Your task to perform on an android device: What is the news today? Image 0: 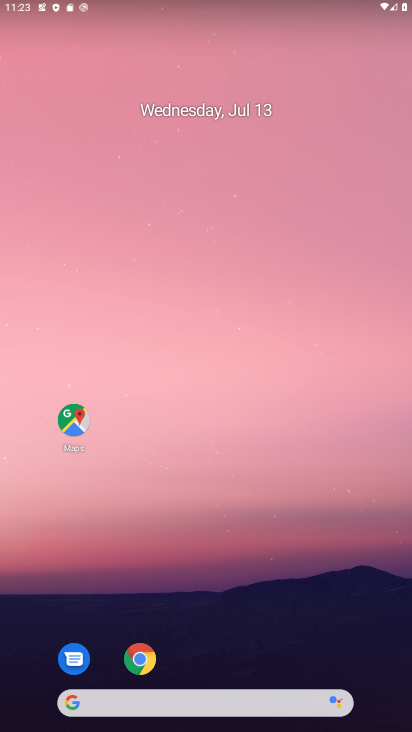
Step 0: click (132, 664)
Your task to perform on an android device: What is the news today? Image 1: 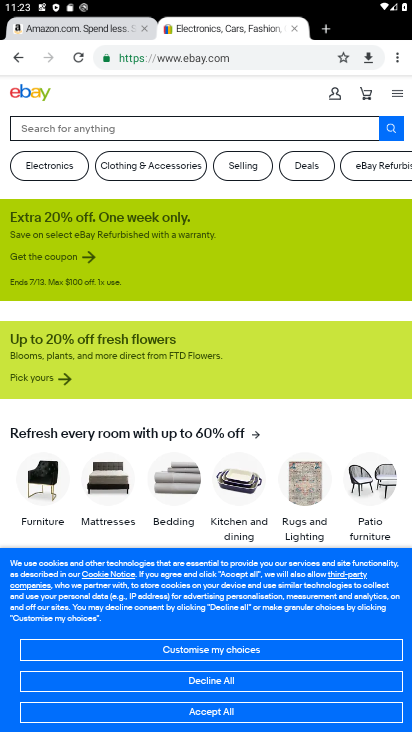
Step 1: click (239, 61)
Your task to perform on an android device: What is the news today? Image 2: 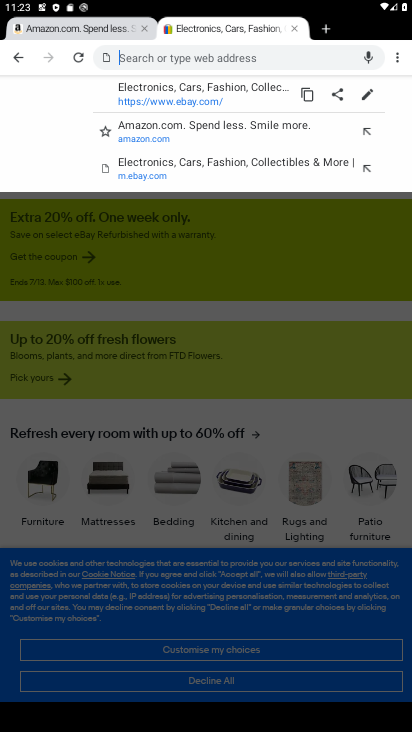
Step 2: type "news today"
Your task to perform on an android device: What is the news today? Image 3: 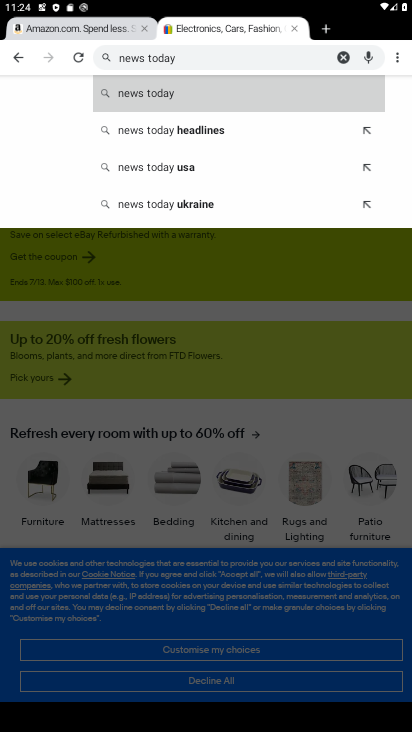
Step 3: click (257, 87)
Your task to perform on an android device: What is the news today? Image 4: 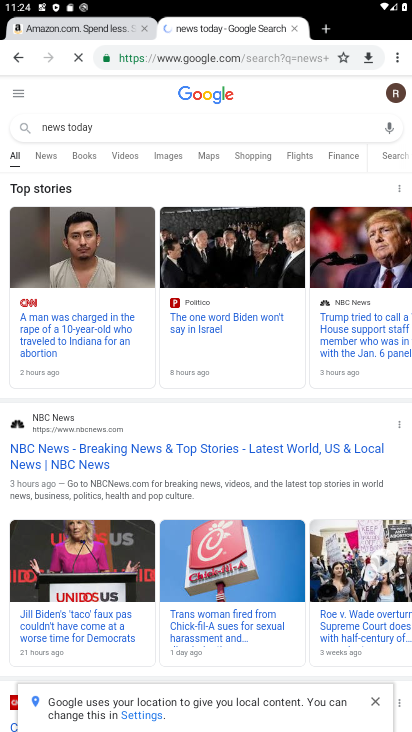
Step 4: task complete